Your task to perform on an android device: Open Chrome and go to settings Image 0: 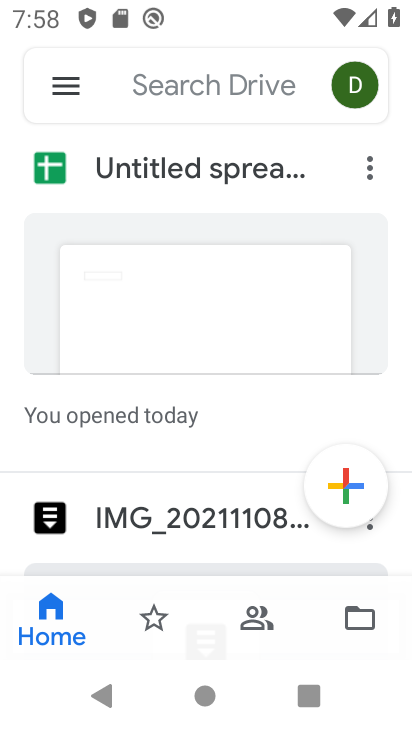
Step 0: press back button
Your task to perform on an android device: Open Chrome and go to settings Image 1: 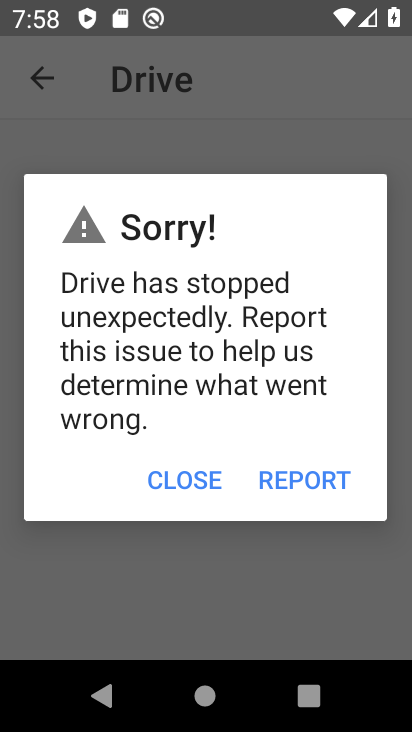
Step 1: press back button
Your task to perform on an android device: Open Chrome and go to settings Image 2: 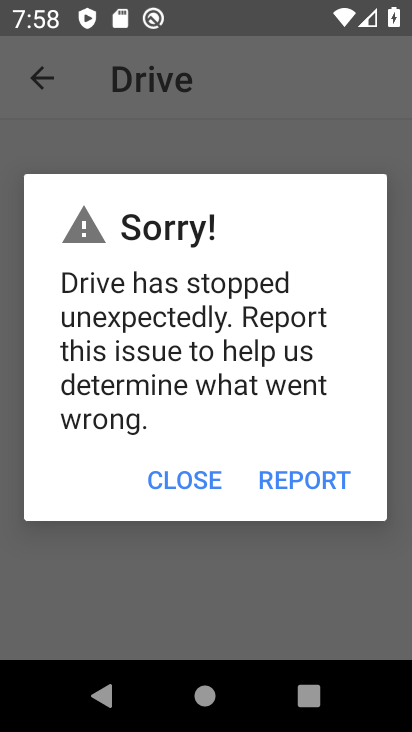
Step 2: press home button
Your task to perform on an android device: Open Chrome and go to settings Image 3: 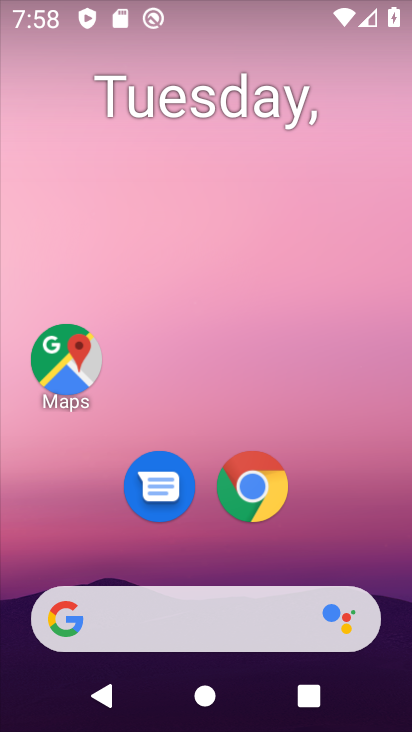
Step 3: click (271, 498)
Your task to perform on an android device: Open Chrome and go to settings Image 4: 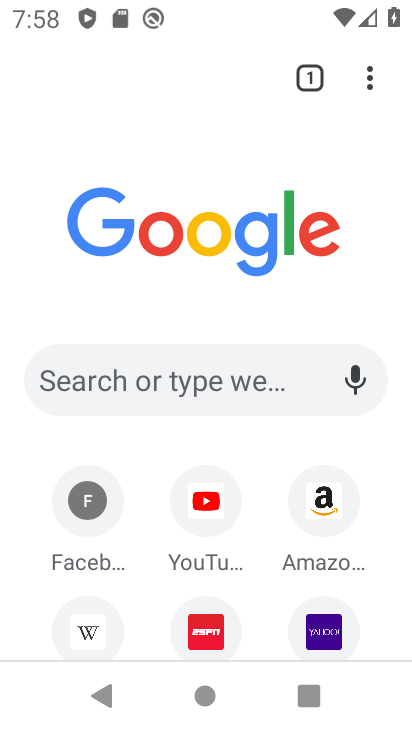
Step 4: click (367, 76)
Your task to perform on an android device: Open Chrome and go to settings Image 5: 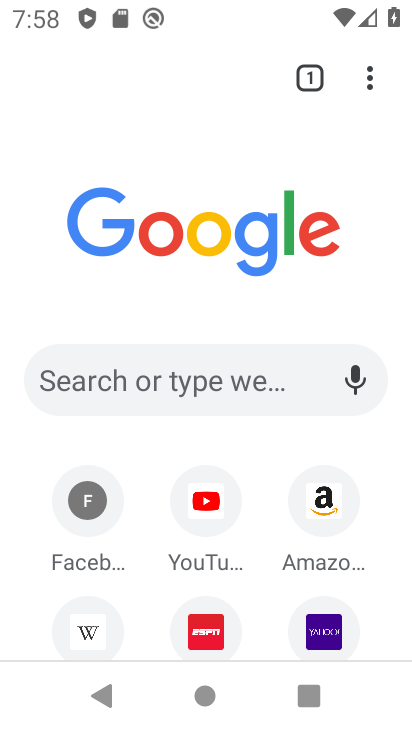
Step 5: click (361, 81)
Your task to perform on an android device: Open Chrome and go to settings Image 6: 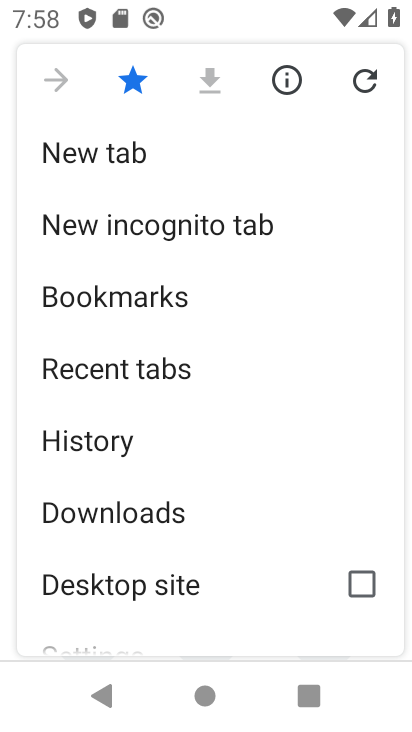
Step 6: drag from (226, 582) to (275, 220)
Your task to perform on an android device: Open Chrome and go to settings Image 7: 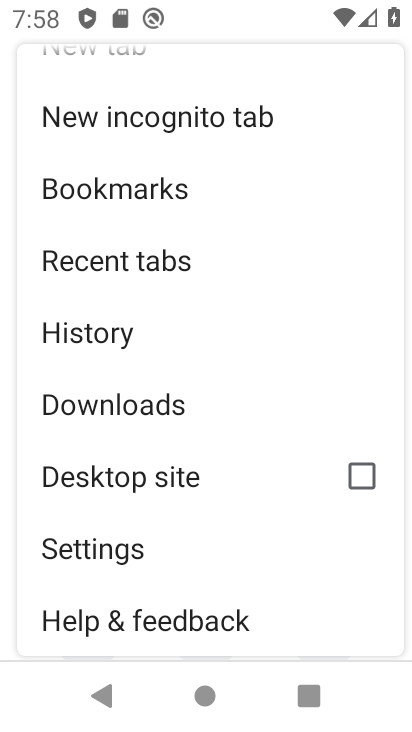
Step 7: click (213, 554)
Your task to perform on an android device: Open Chrome and go to settings Image 8: 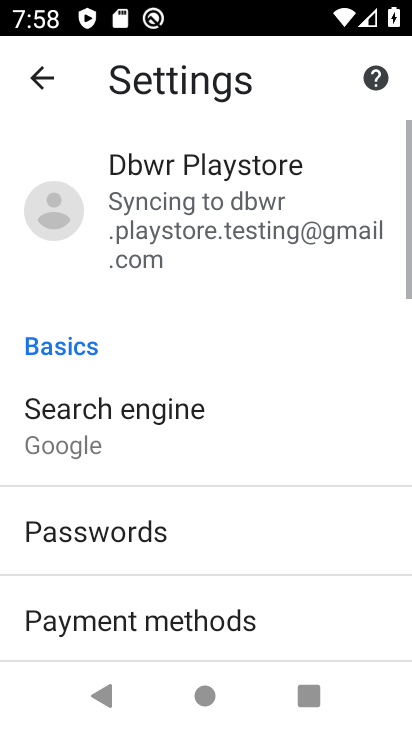
Step 8: task complete